Your task to perform on an android device: turn off smart reply in the gmail app Image 0: 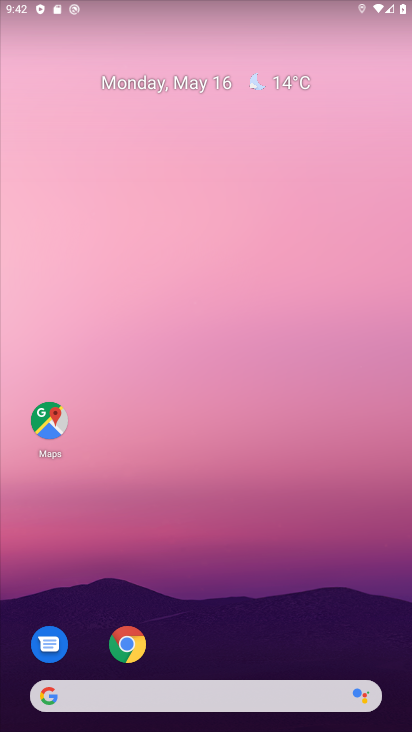
Step 0: drag from (261, 607) to (241, 158)
Your task to perform on an android device: turn off smart reply in the gmail app Image 1: 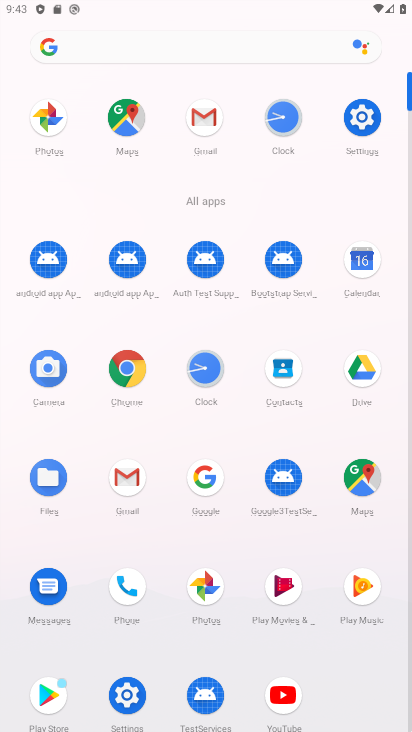
Step 1: click (125, 472)
Your task to perform on an android device: turn off smart reply in the gmail app Image 2: 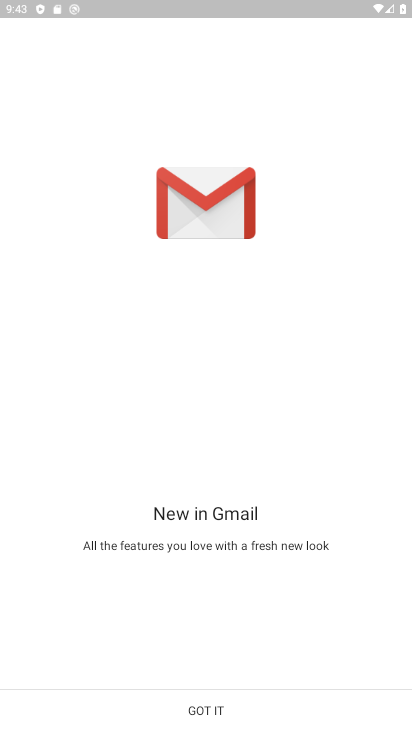
Step 2: click (217, 711)
Your task to perform on an android device: turn off smart reply in the gmail app Image 3: 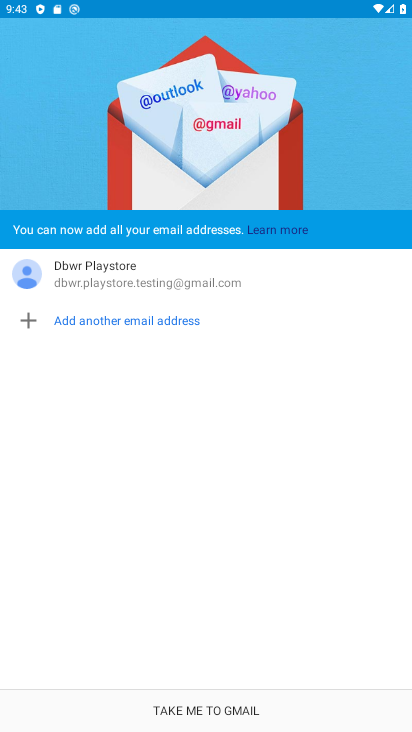
Step 3: click (217, 711)
Your task to perform on an android device: turn off smart reply in the gmail app Image 4: 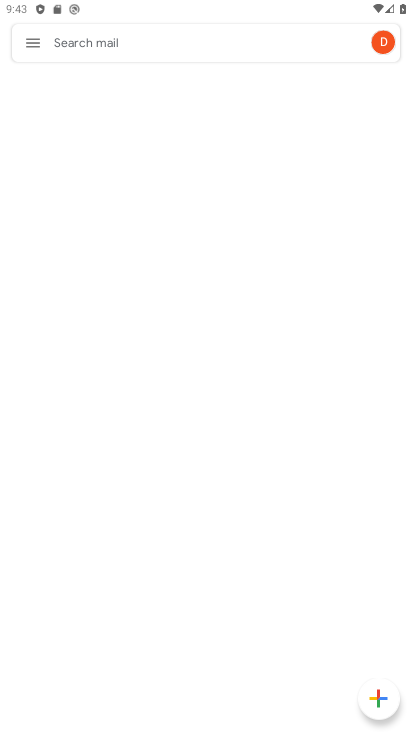
Step 4: click (34, 38)
Your task to perform on an android device: turn off smart reply in the gmail app Image 5: 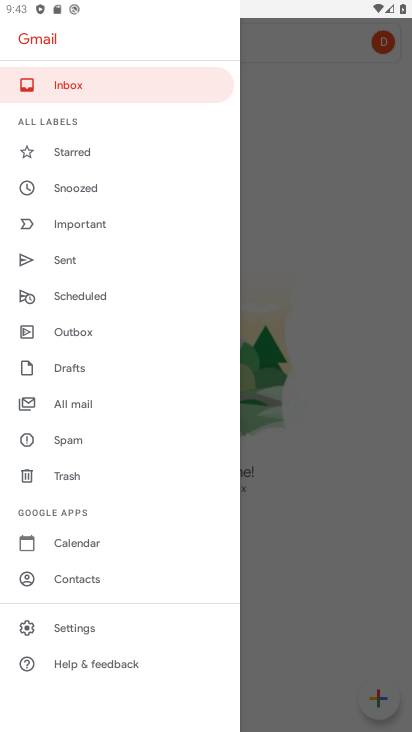
Step 5: click (91, 626)
Your task to perform on an android device: turn off smart reply in the gmail app Image 6: 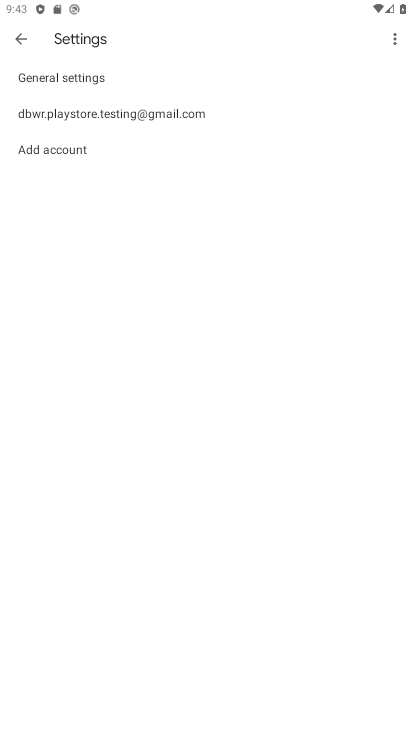
Step 6: click (133, 105)
Your task to perform on an android device: turn off smart reply in the gmail app Image 7: 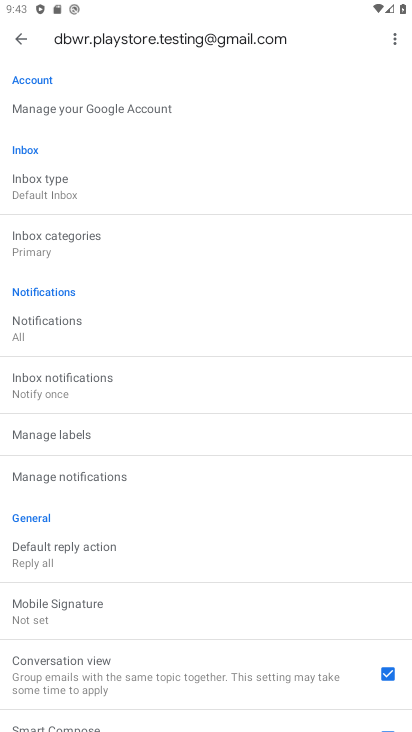
Step 7: drag from (172, 583) to (168, 253)
Your task to perform on an android device: turn off smart reply in the gmail app Image 8: 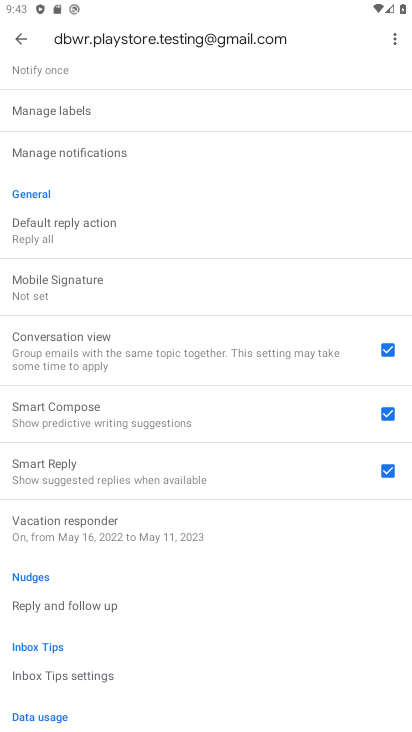
Step 8: click (393, 472)
Your task to perform on an android device: turn off smart reply in the gmail app Image 9: 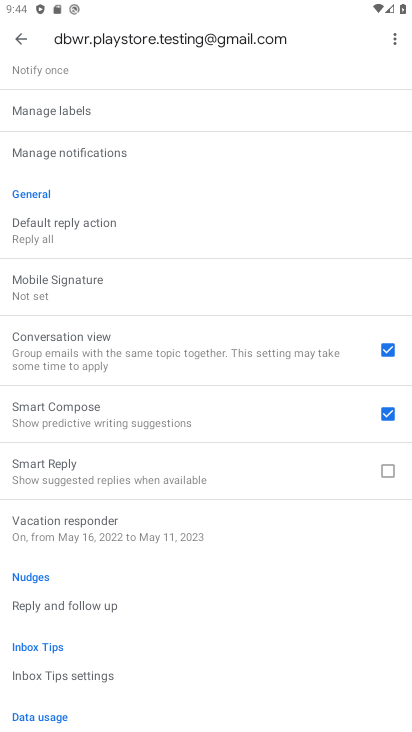
Step 9: task complete